Your task to perform on an android device: turn on translation in the chrome app Image 0: 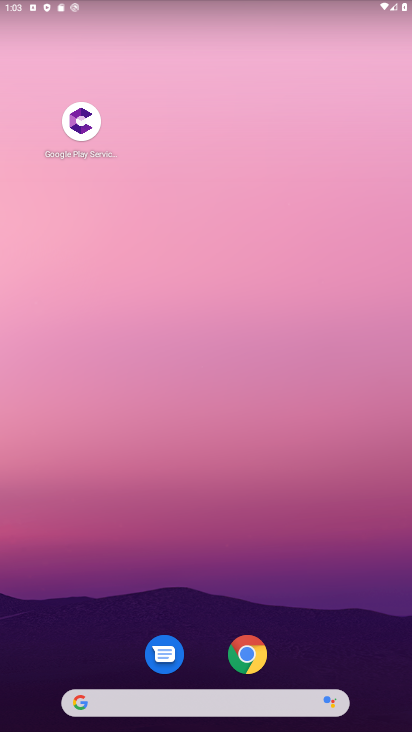
Step 0: click (242, 649)
Your task to perform on an android device: turn on translation in the chrome app Image 1: 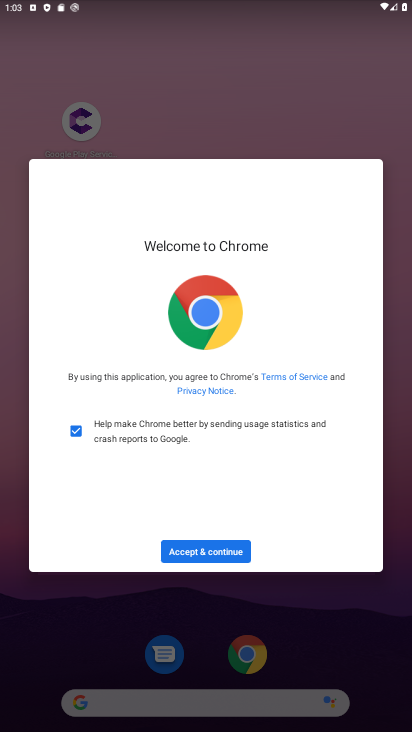
Step 1: click (202, 560)
Your task to perform on an android device: turn on translation in the chrome app Image 2: 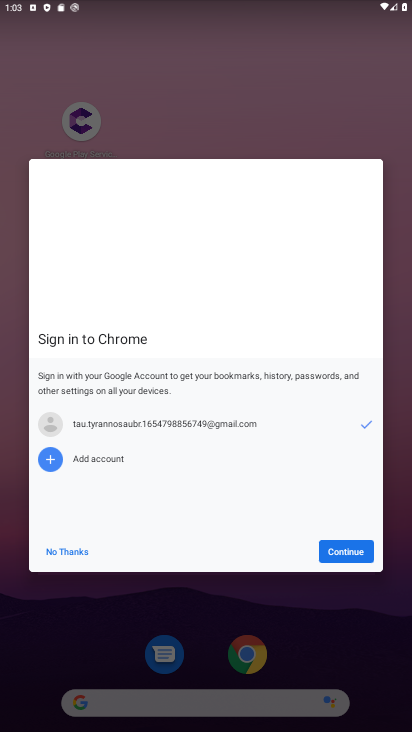
Step 2: click (197, 553)
Your task to perform on an android device: turn on translation in the chrome app Image 3: 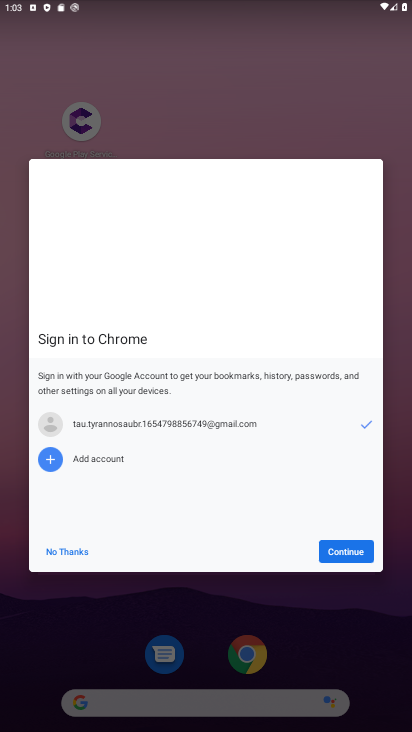
Step 3: click (334, 557)
Your task to perform on an android device: turn on translation in the chrome app Image 4: 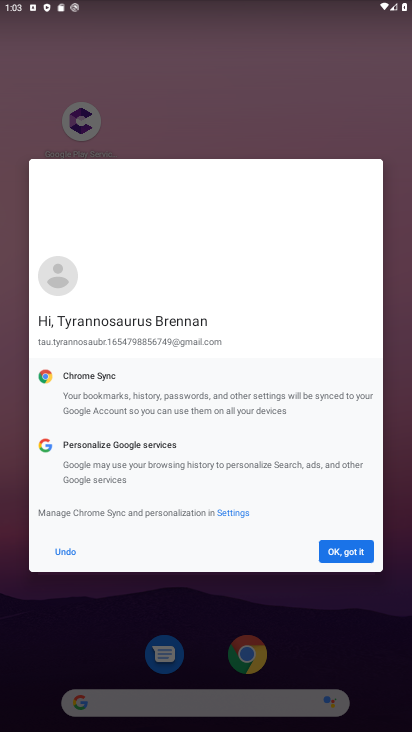
Step 4: click (328, 552)
Your task to perform on an android device: turn on translation in the chrome app Image 5: 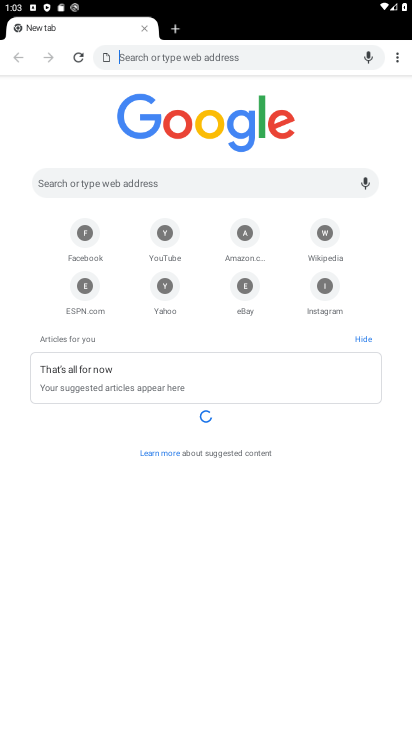
Step 5: click (400, 49)
Your task to perform on an android device: turn on translation in the chrome app Image 6: 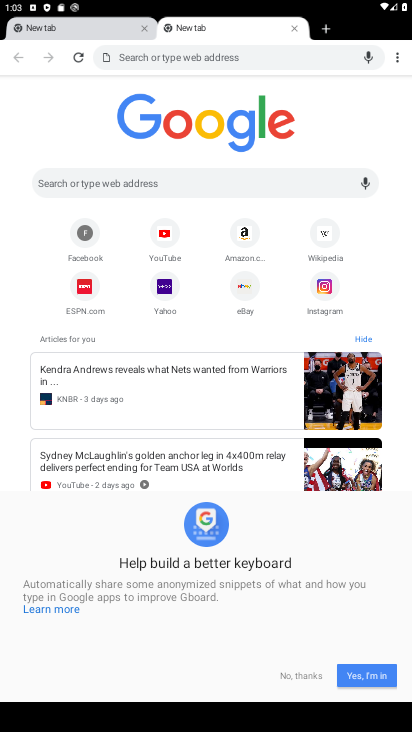
Step 6: click (398, 56)
Your task to perform on an android device: turn on translation in the chrome app Image 7: 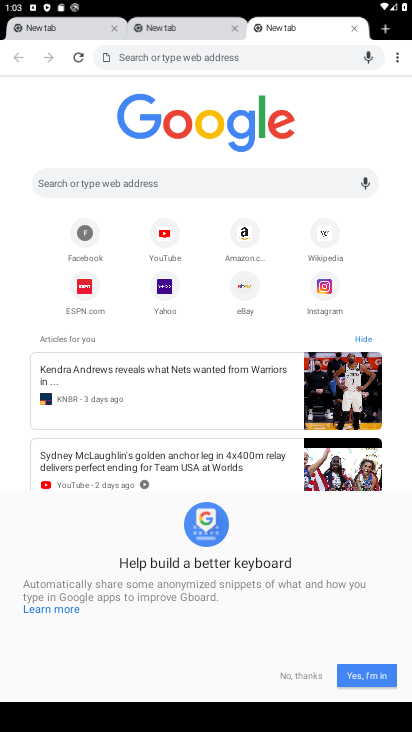
Step 7: click (396, 59)
Your task to perform on an android device: turn on translation in the chrome app Image 8: 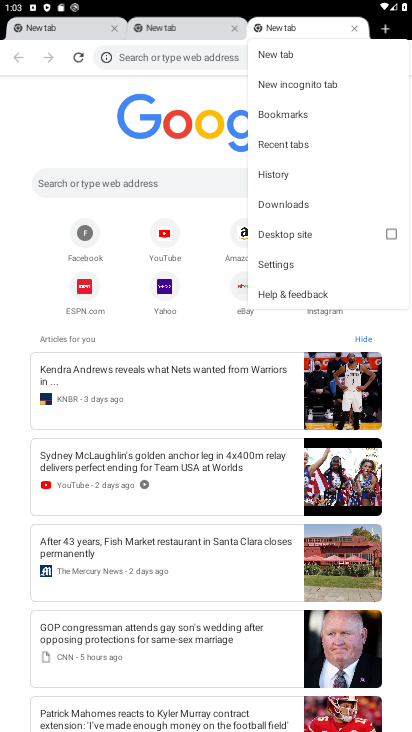
Step 8: click (274, 266)
Your task to perform on an android device: turn on translation in the chrome app Image 9: 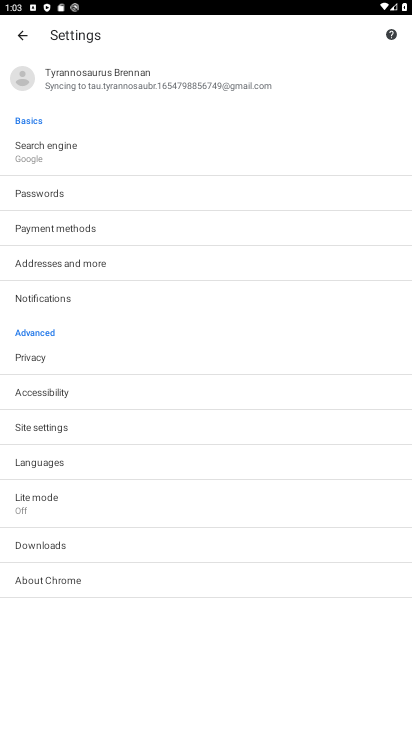
Step 9: click (47, 461)
Your task to perform on an android device: turn on translation in the chrome app Image 10: 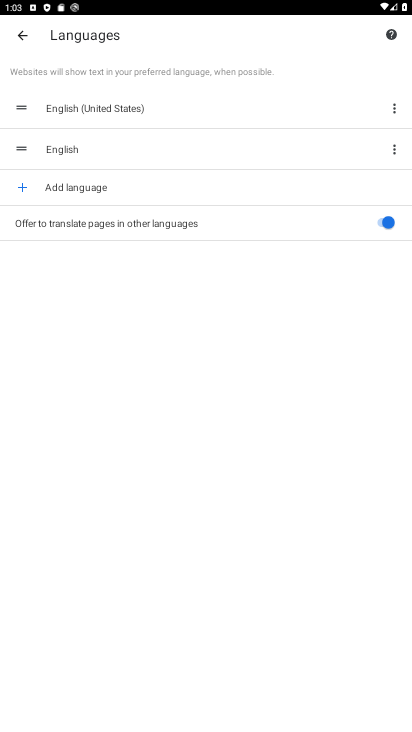
Step 10: task complete